Your task to perform on an android device: Open display settings Image 0: 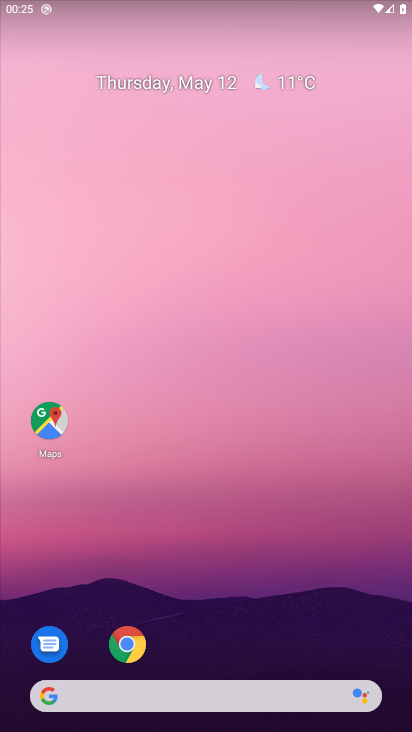
Step 0: drag from (219, 655) to (237, 6)
Your task to perform on an android device: Open display settings Image 1: 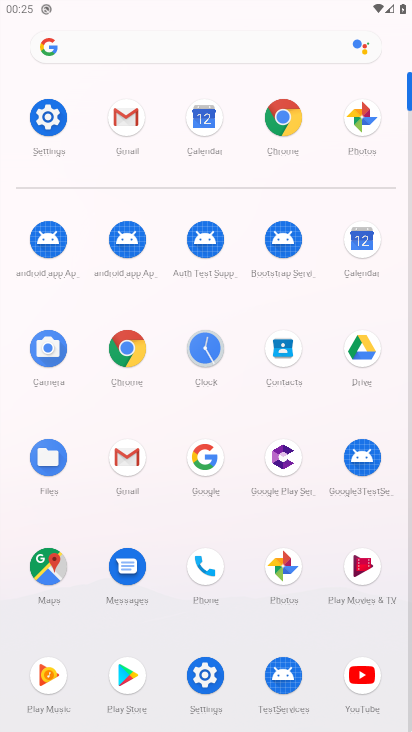
Step 1: click (199, 666)
Your task to perform on an android device: Open display settings Image 2: 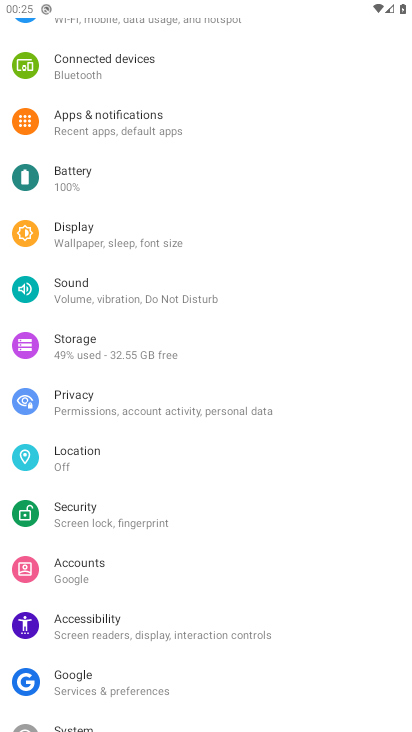
Step 2: click (102, 228)
Your task to perform on an android device: Open display settings Image 3: 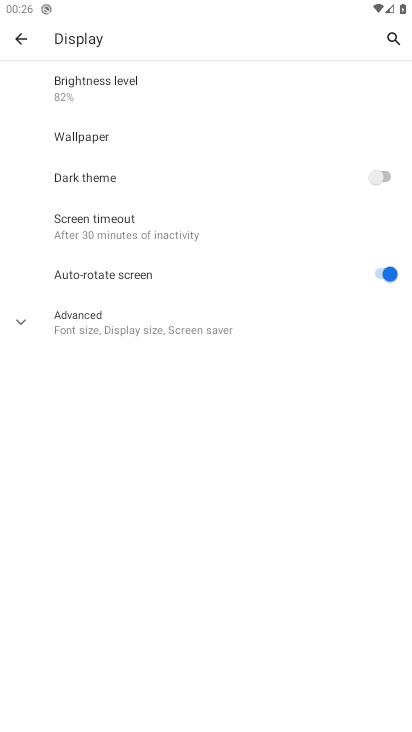
Step 3: click (24, 316)
Your task to perform on an android device: Open display settings Image 4: 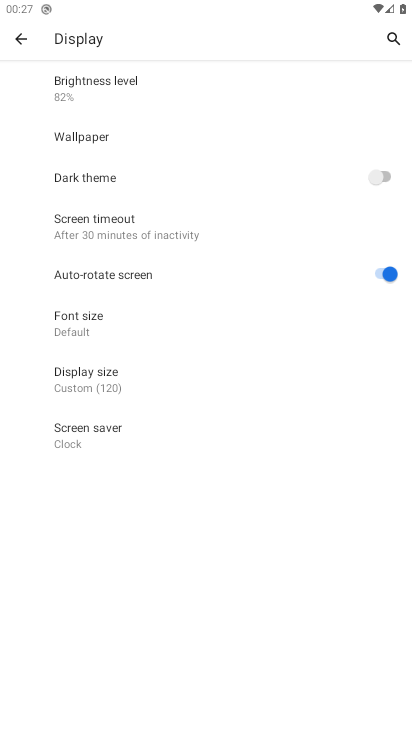
Step 4: task complete